Your task to perform on an android device: Open sound settings Image 0: 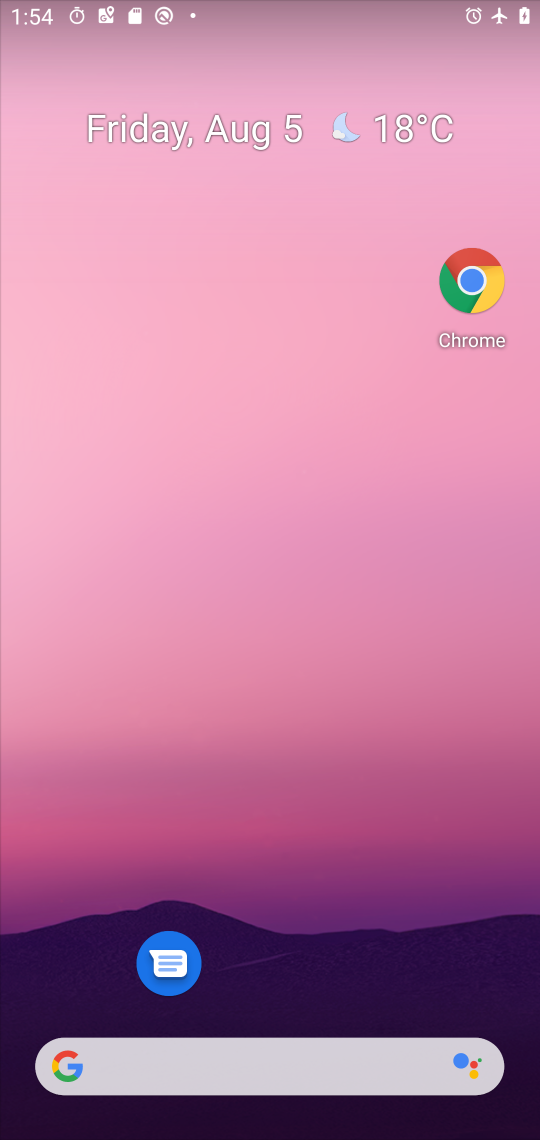
Step 0: drag from (310, 984) to (362, 29)
Your task to perform on an android device: Open sound settings Image 1: 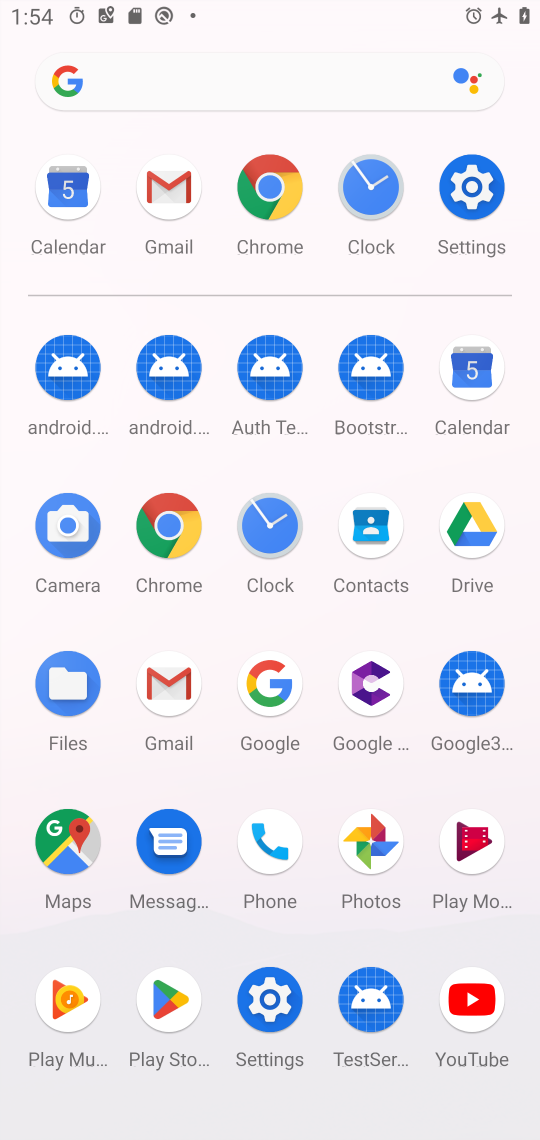
Step 1: click (470, 172)
Your task to perform on an android device: Open sound settings Image 2: 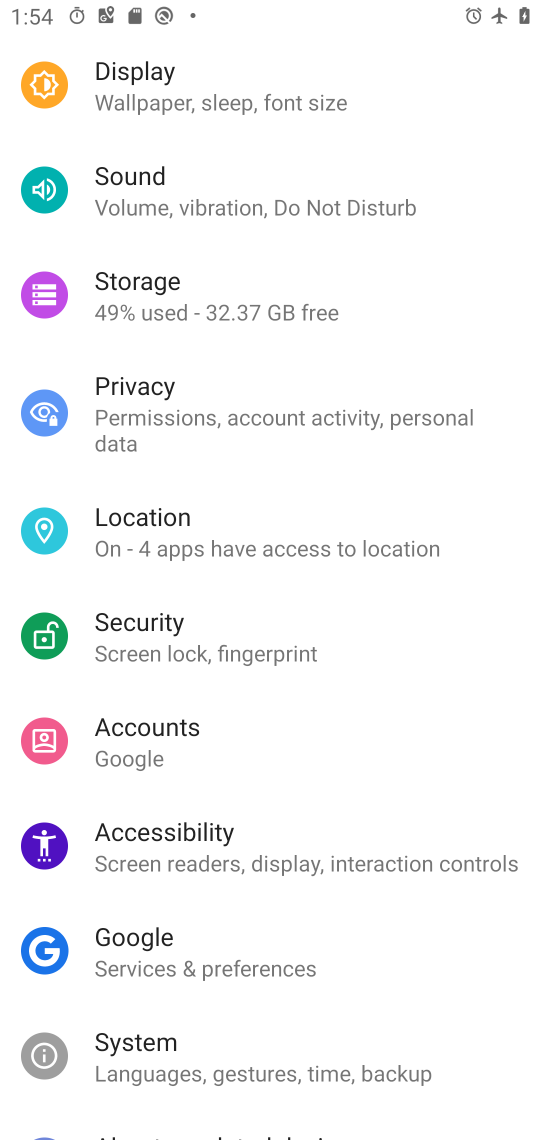
Step 2: click (157, 211)
Your task to perform on an android device: Open sound settings Image 3: 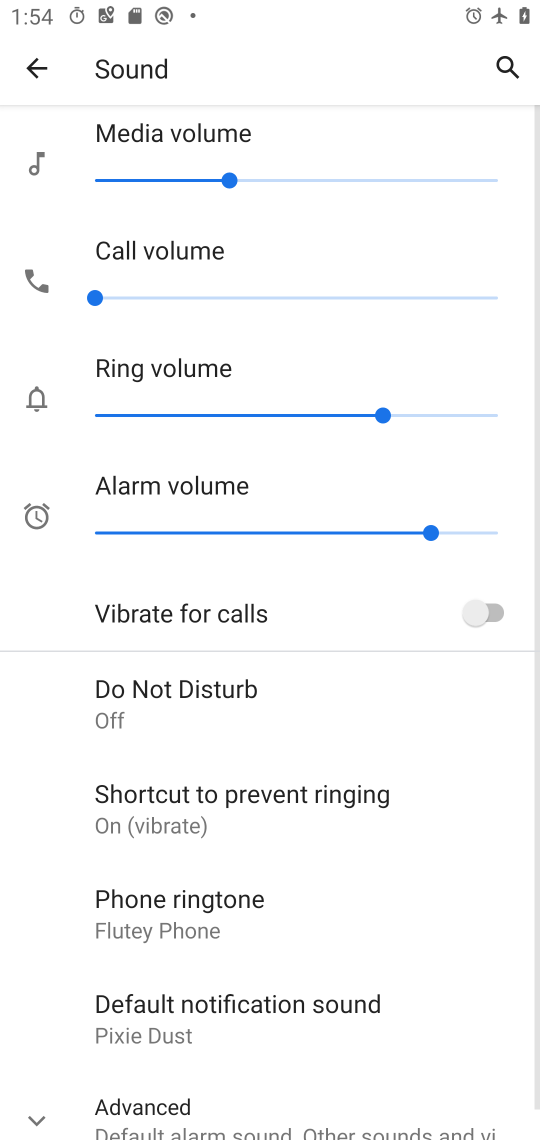
Step 3: task complete